Your task to perform on an android device: Open privacy settings Image 0: 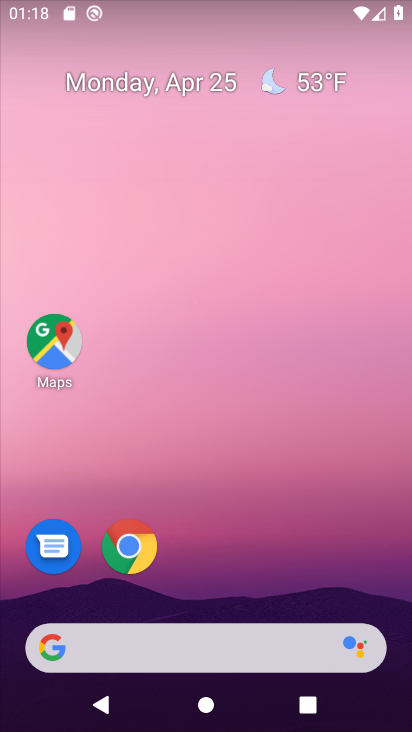
Step 0: drag from (233, 529) to (298, 32)
Your task to perform on an android device: Open privacy settings Image 1: 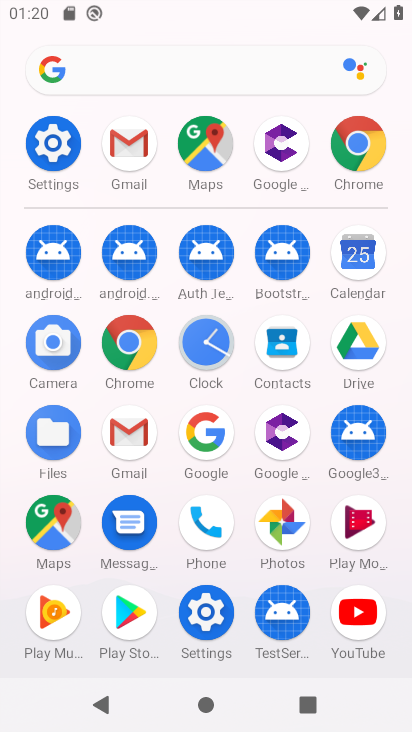
Step 1: click (43, 135)
Your task to perform on an android device: Open privacy settings Image 2: 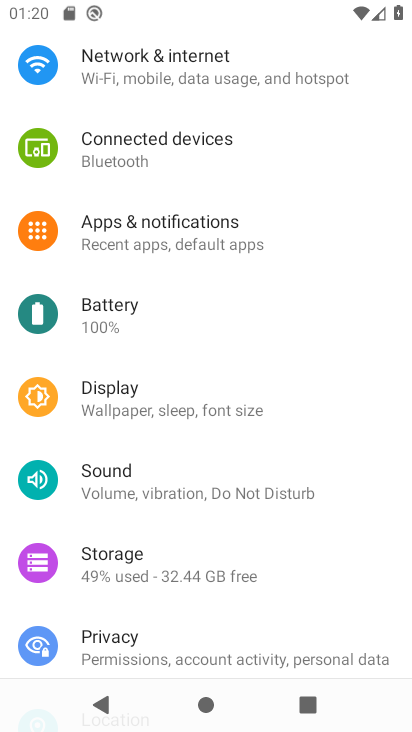
Step 2: drag from (247, 159) to (242, 33)
Your task to perform on an android device: Open privacy settings Image 3: 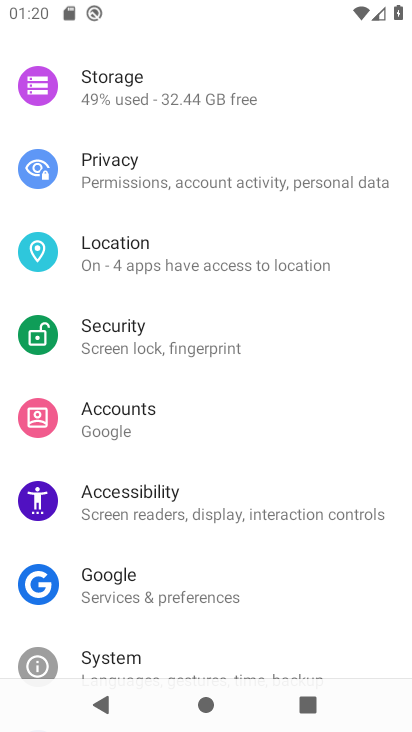
Step 3: click (91, 142)
Your task to perform on an android device: Open privacy settings Image 4: 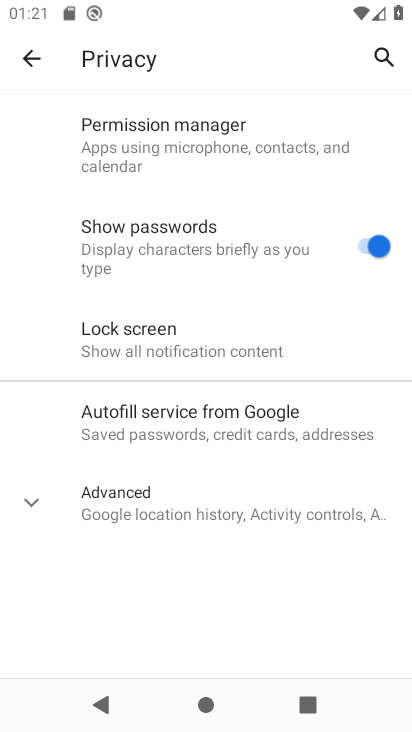
Step 4: task complete